Your task to perform on an android device: turn off wifi Image 0: 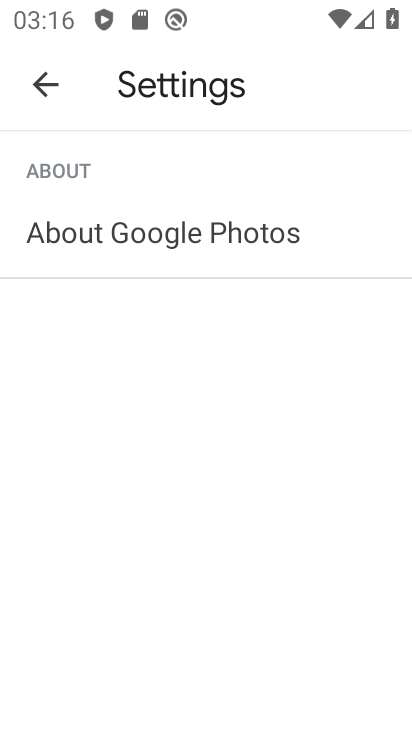
Step 0: press back button
Your task to perform on an android device: turn off wifi Image 1: 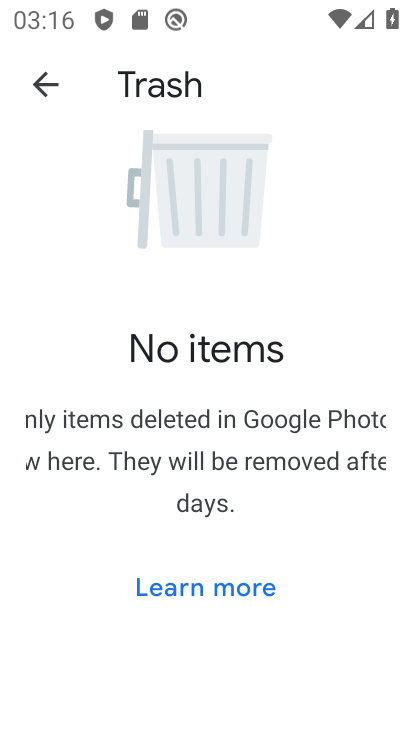
Step 1: press back button
Your task to perform on an android device: turn off wifi Image 2: 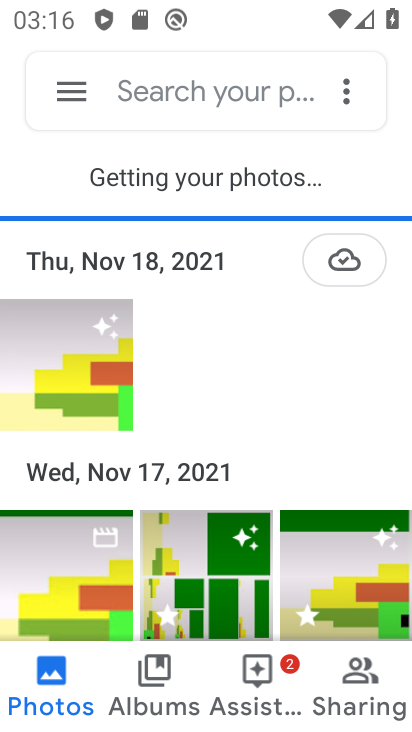
Step 2: press home button
Your task to perform on an android device: turn off wifi Image 3: 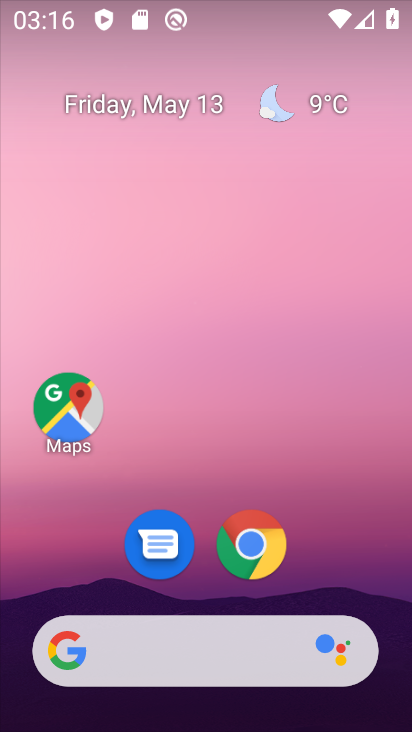
Step 3: drag from (333, 545) to (223, 37)
Your task to perform on an android device: turn off wifi Image 4: 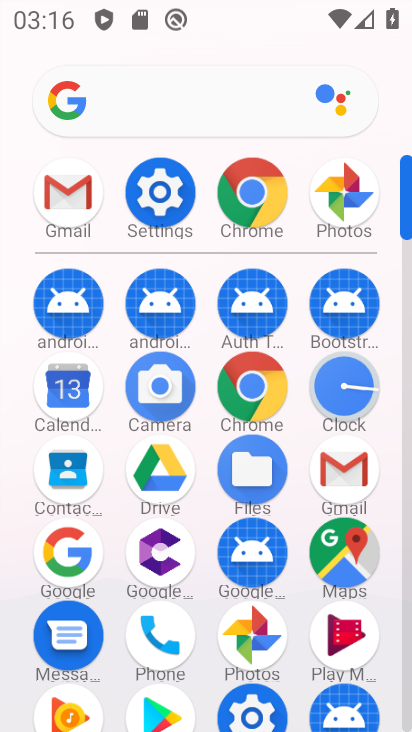
Step 4: drag from (8, 556) to (8, 206)
Your task to perform on an android device: turn off wifi Image 5: 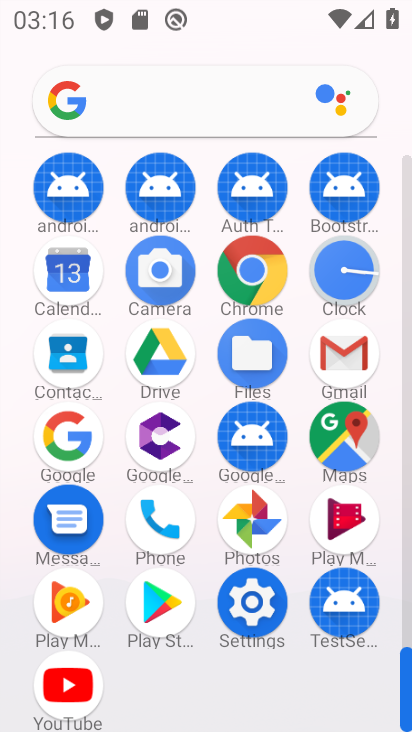
Step 5: click (246, 598)
Your task to perform on an android device: turn off wifi Image 6: 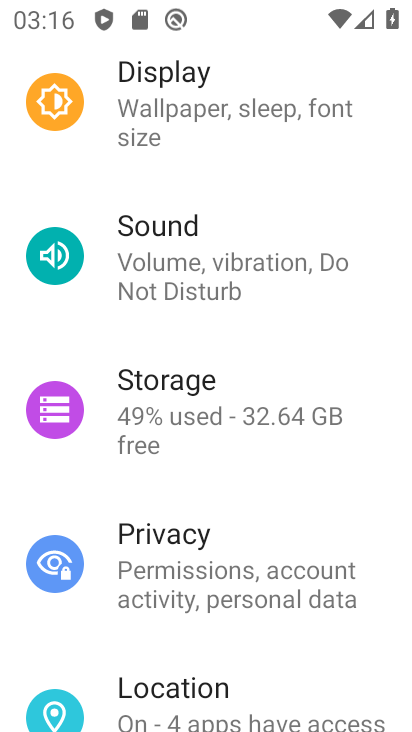
Step 6: drag from (217, 124) to (233, 480)
Your task to perform on an android device: turn off wifi Image 7: 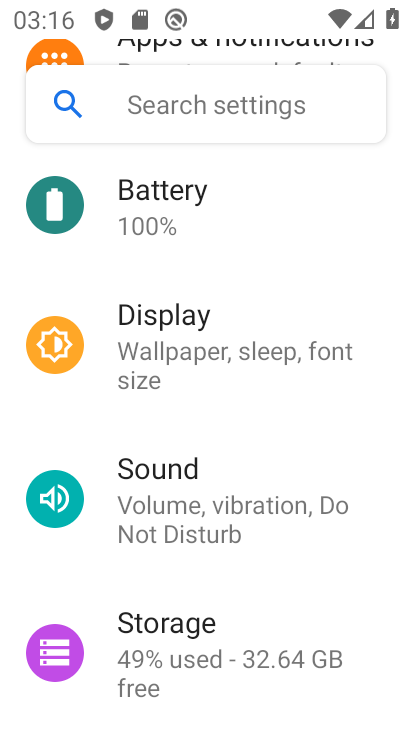
Step 7: drag from (230, 239) to (248, 593)
Your task to perform on an android device: turn off wifi Image 8: 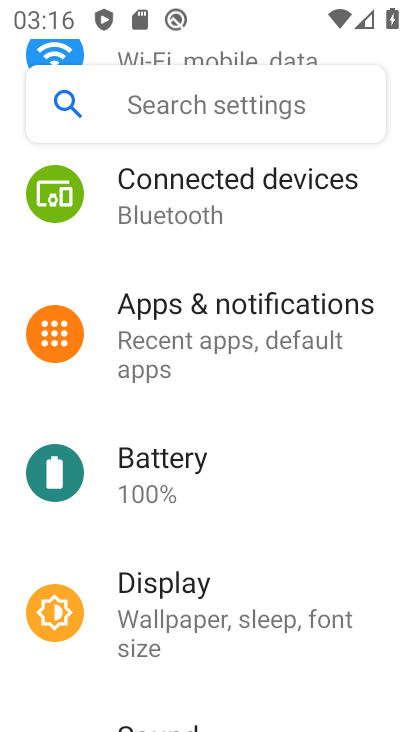
Step 8: drag from (237, 297) to (264, 593)
Your task to perform on an android device: turn off wifi Image 9: 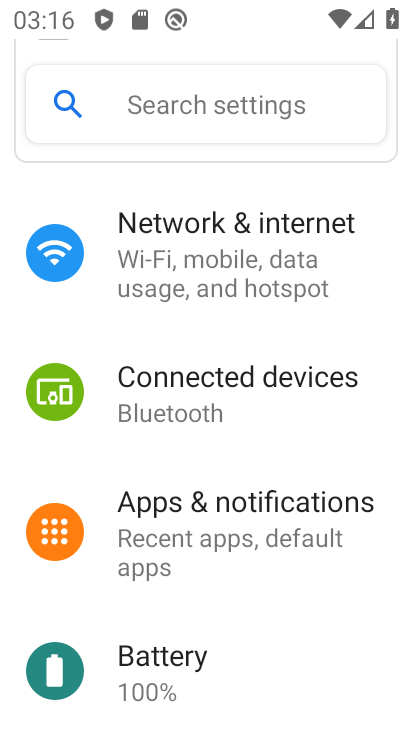
Step 9: click (269, 249)
Your task to perform on an android device: turn off wifi Image 10: 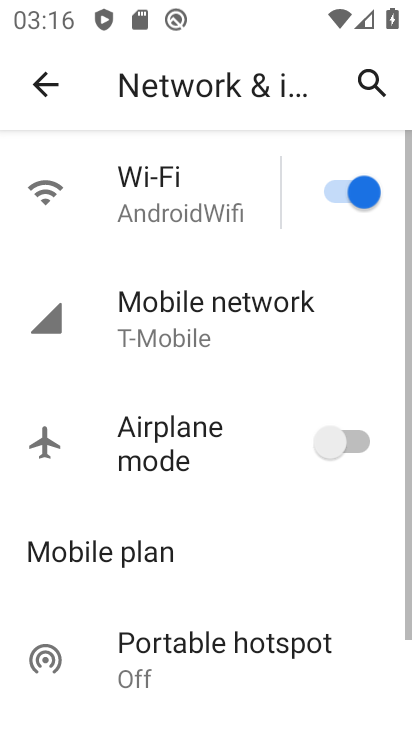
Step 10: click (329, 179)
Your task to perform on an android device: turn off wifi Image 11: 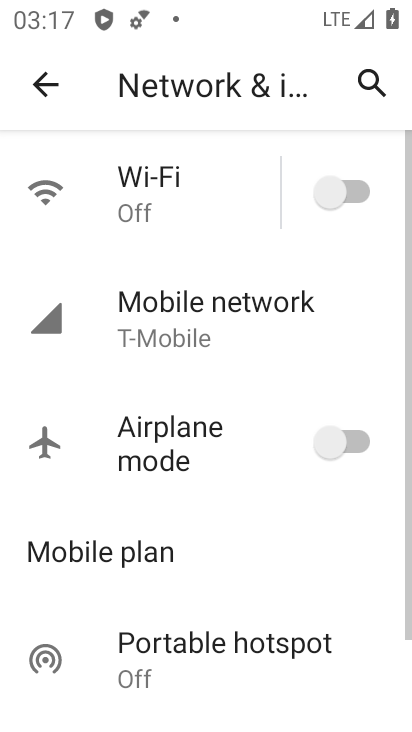
Step 11: task complete